Your task to perform on an android device: Toggle the flashlight Image 0: 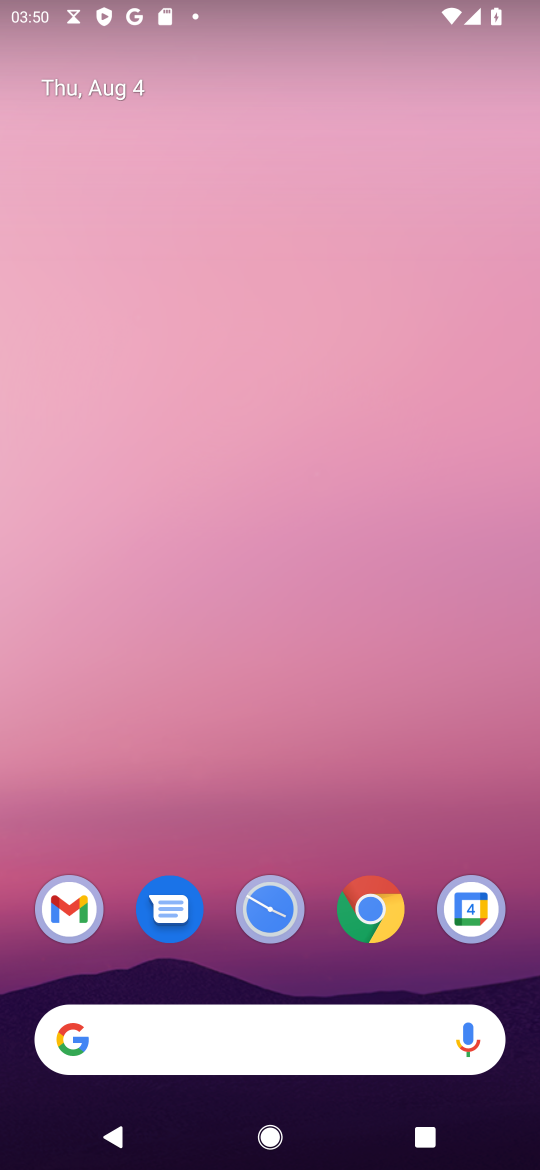
Step 0: drag from (317, 15) to (251, 604)
Your task to perform on an android device: Toggle the flashlight Image 1: 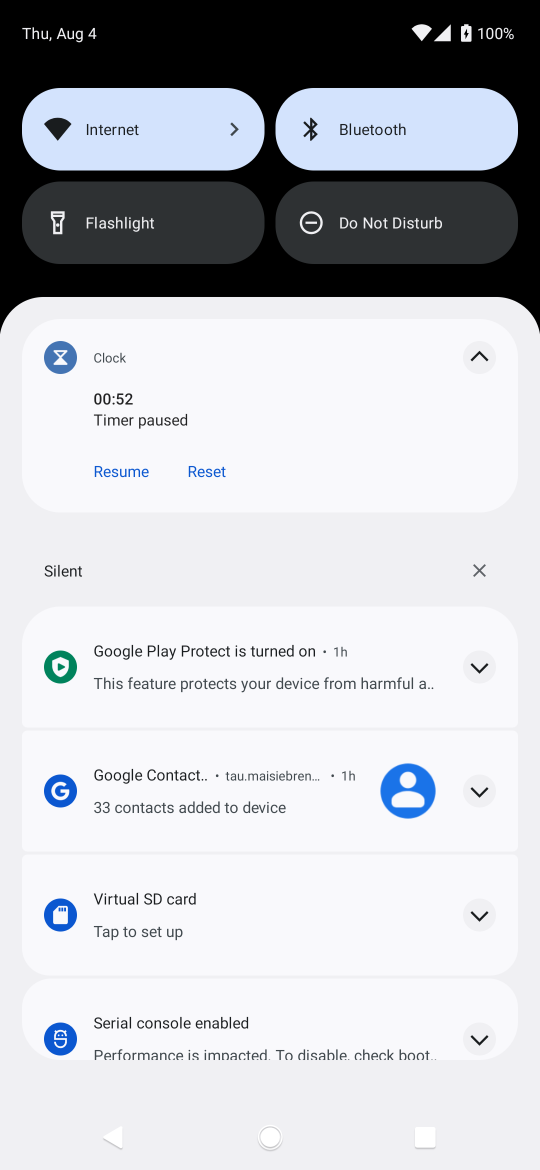
Step 1: click (142, 243)
Your task to perform on an android device: Toggle the flashlight Image 2: 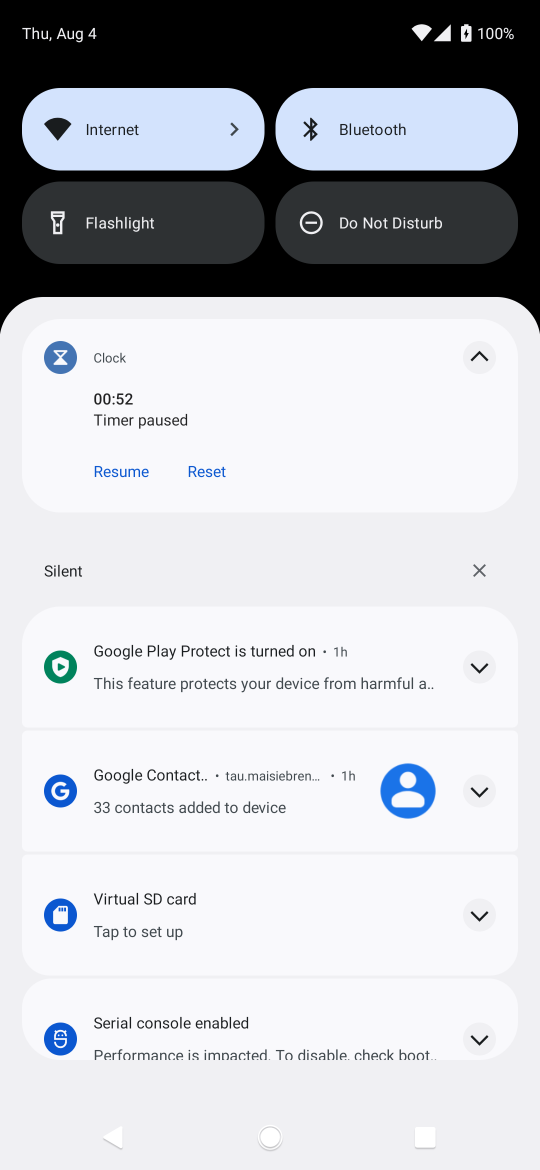
Step 2: click (94, 225)
Your task to perform on an android device: Toggle the flashlight Image 3: 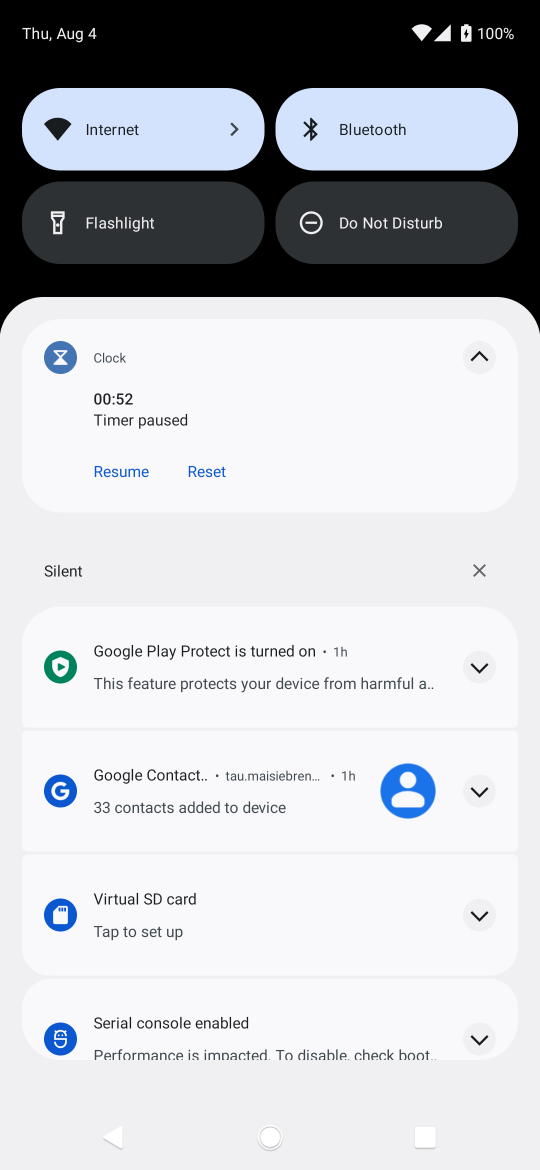
Step 3: click (54, 226)
Your task to perform on an android device: Toggle the flashlight Image 4: 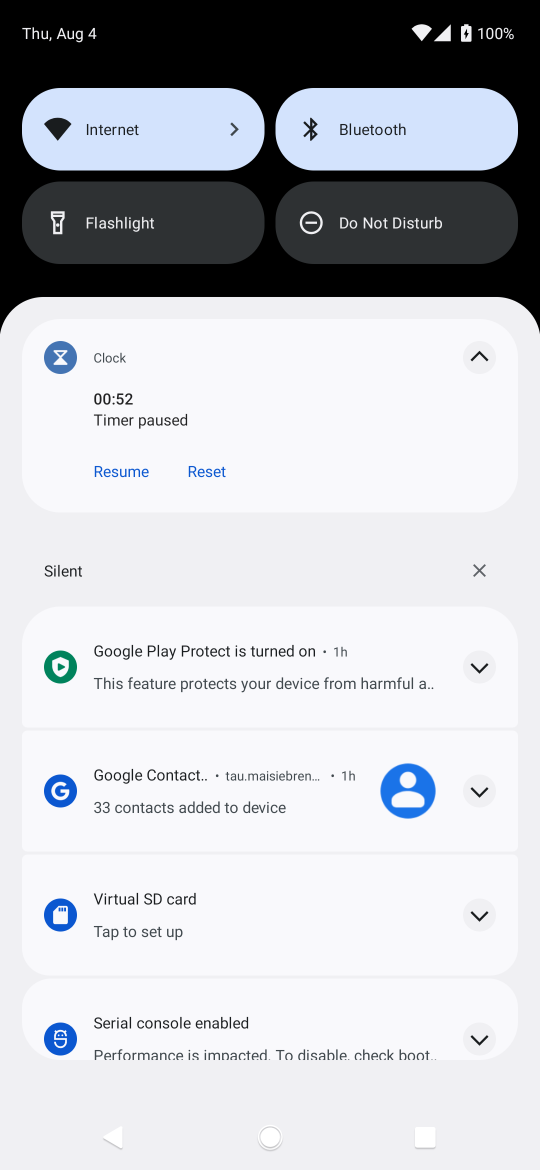
Step 4: task complete